Your task to perform on an android device: What's the weather today? Image 0: 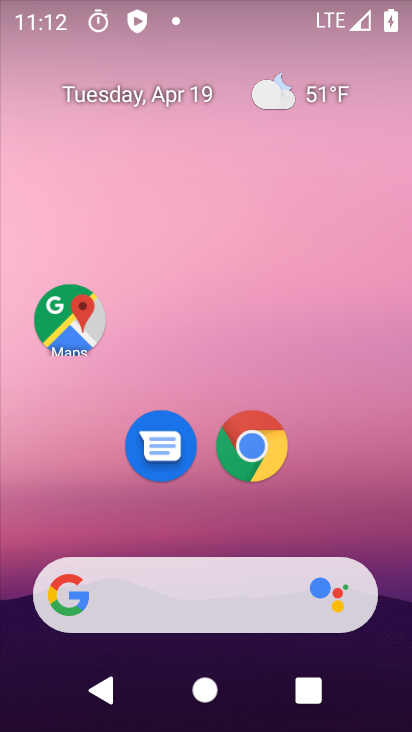
Step 0: click (326, 94)
Your task to perform on an android device: What's the weather today? Image 1: 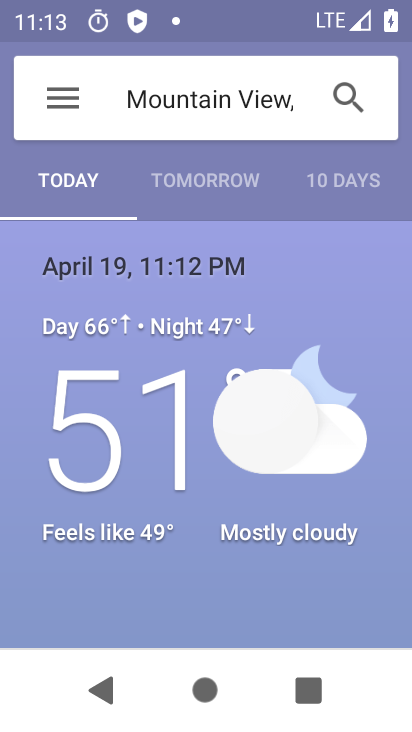
Step 1: task complete